Your task to perform on an android device: turn on airplane mode Image 0: 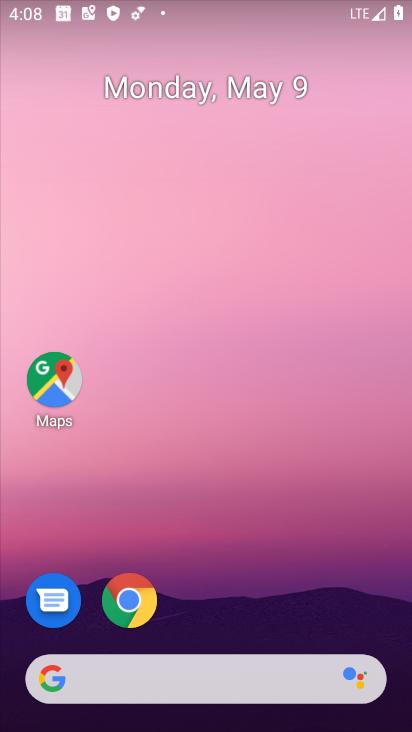
Step 0: drag from (260, 571) to (244, 169)
Your task to perform on an android device: turn on airplane mode Image 1: 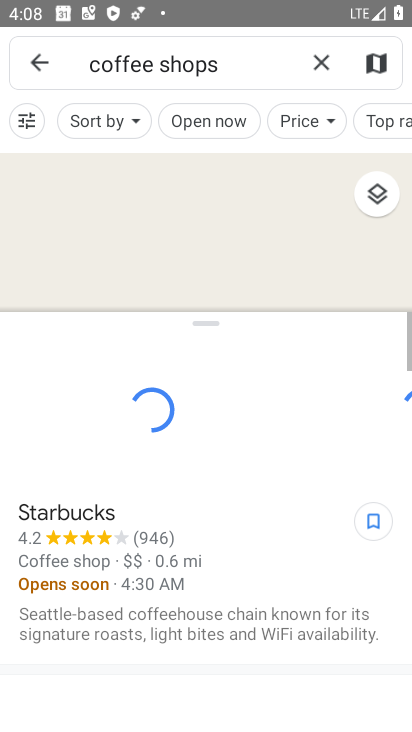
Step 1: press home button
Your task to perform on an android device: turn on airplane mode Image 2: 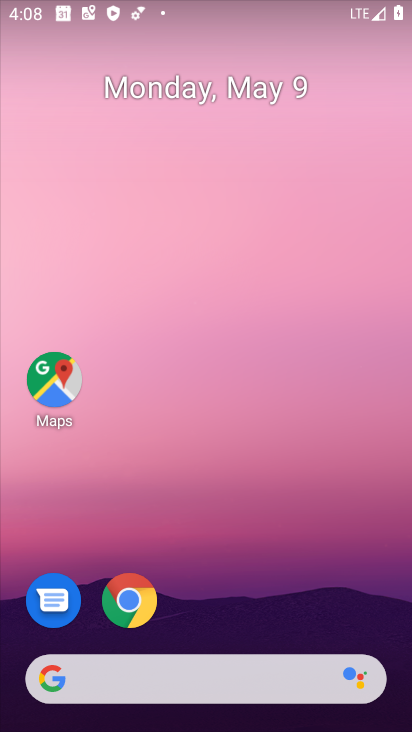
Step 2: drag from (147, 9) to (123, 731)
Your task to perform on an android device: turn on airplane mode Image 3: 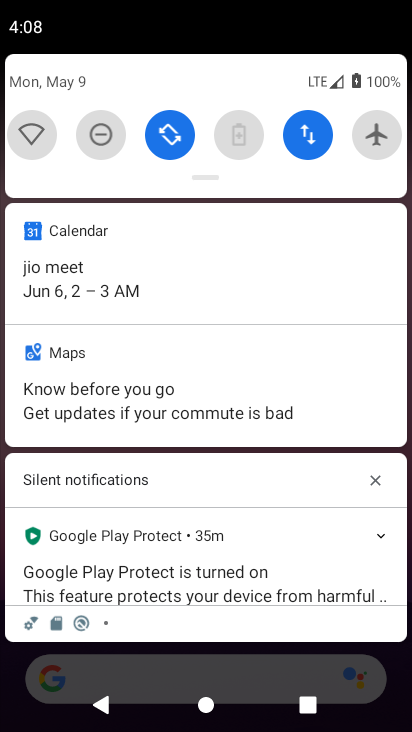
Step 3: drag from (185, 171) to (117, 695)
Your task to perform on an android device: turn on airplane mode Image 4: 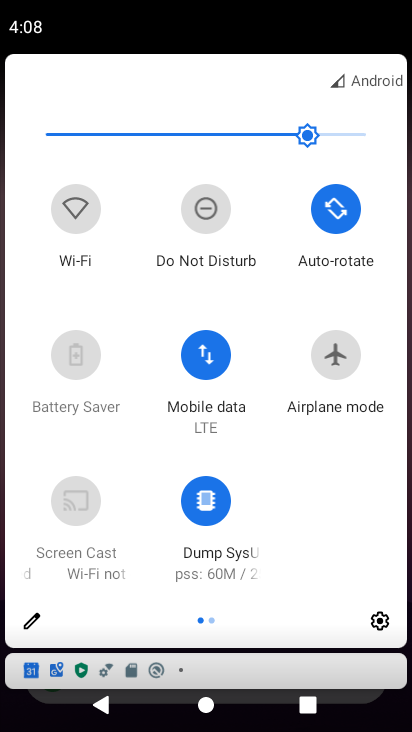
Step 4: click (350, 359)
Your task to perform on an android device: turn on airplane mode Image 5: 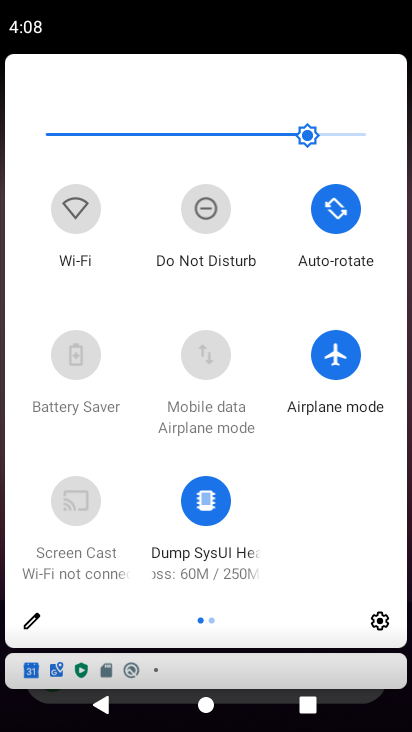
Step 5: task complete